Your task to perform on an android device: turn on showing notifications on the lock screen Image 0: 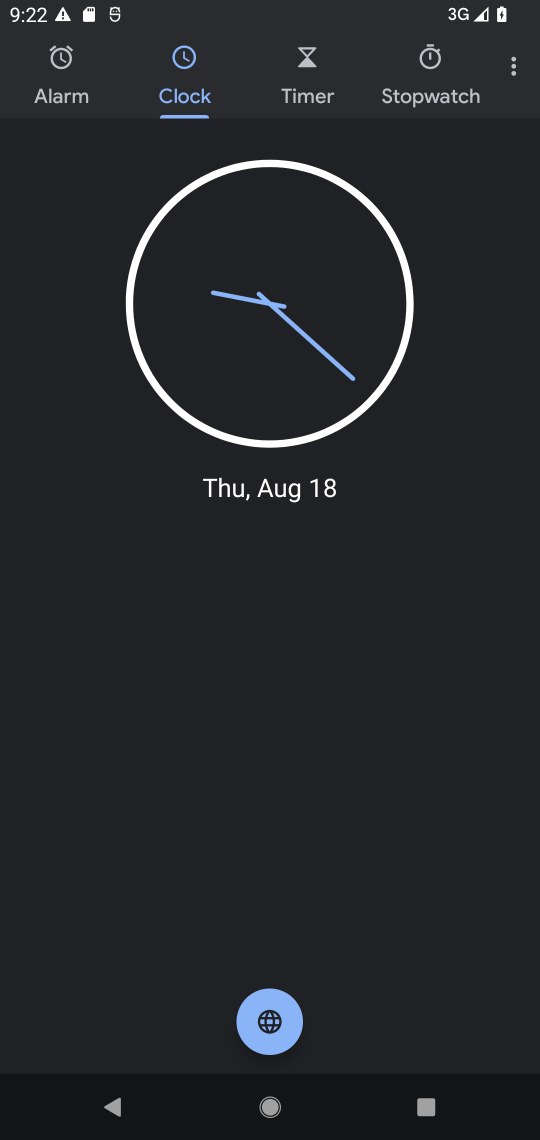
Step 0: press home button
Your task to perform on an android device: turn on showing notifications on the lock screen Image 1: 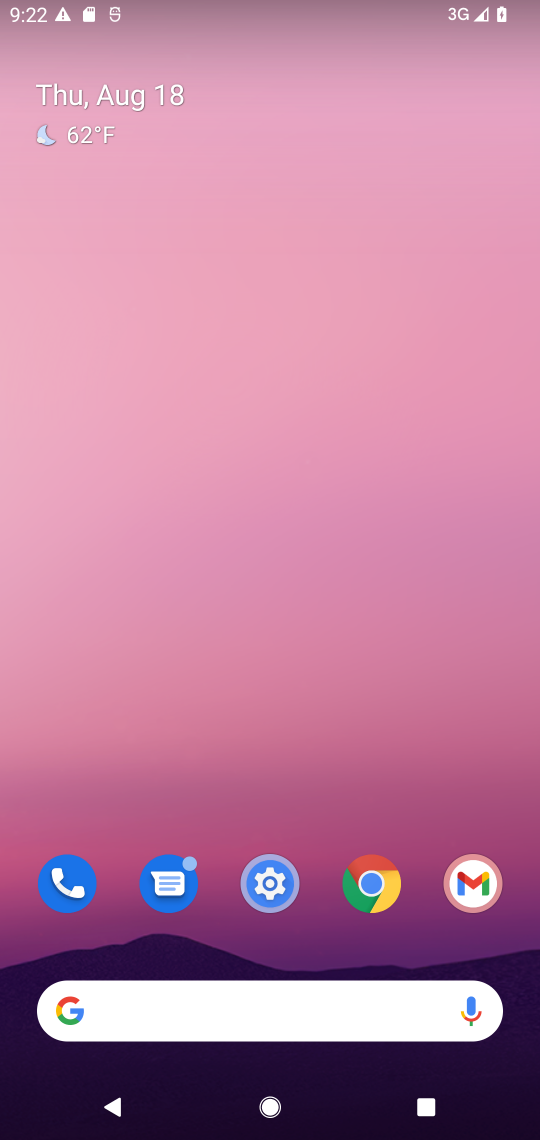
Step 1: drag from (41, 1097) to (269, 282)
Your task to perform on an android device: turn on showing notifications on the lock screen Image 2: 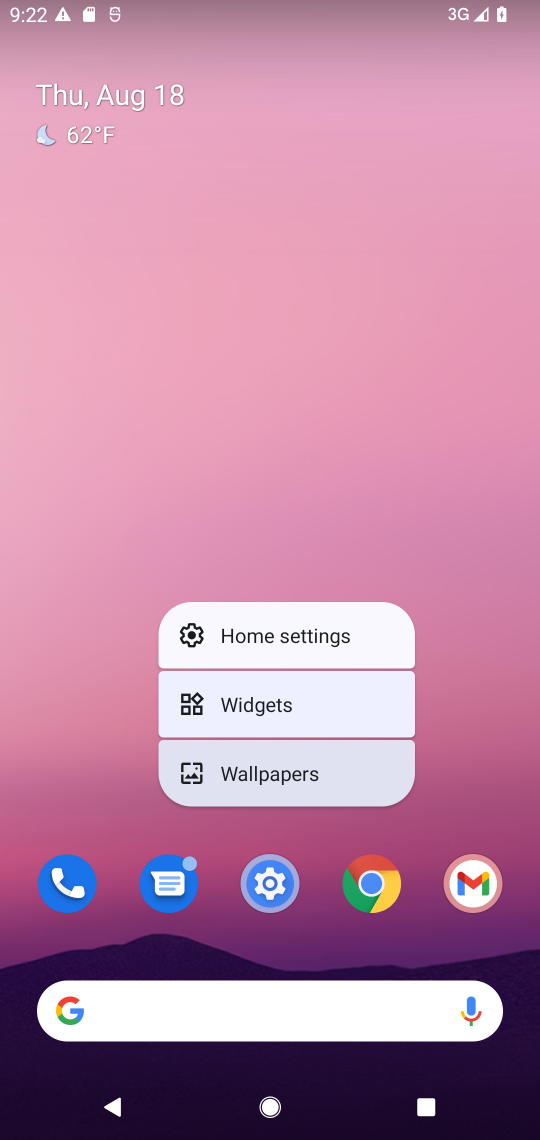
Step 2: click (275, 891)
Your task to perform on an android device: turn on showing notifications on the lock screen Image 3: 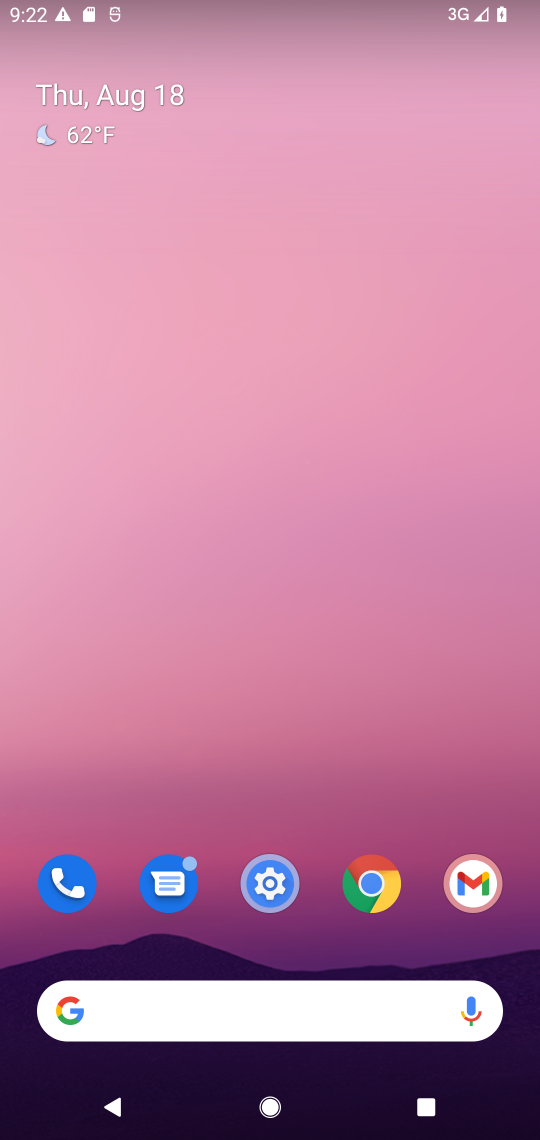
Step 3: click (266, 881)
Your task to perform on an android device: turn on showing notifications on the lock screen Image 4: 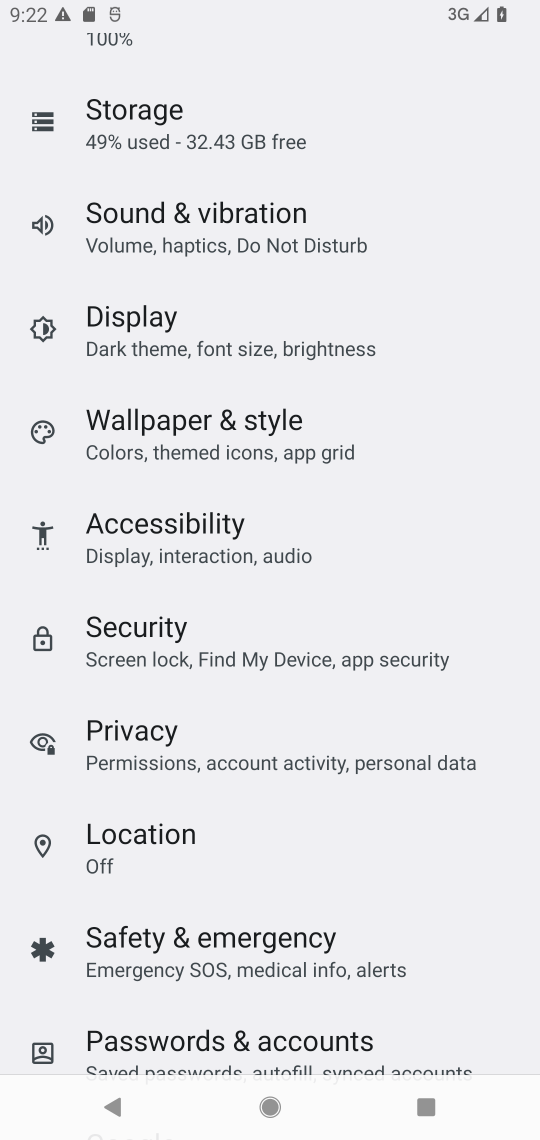
Step 4: drag from (403, 103) to (438, 902)
Your task to perform on an android device: turn on showing notifications on the lock screen Image 5: 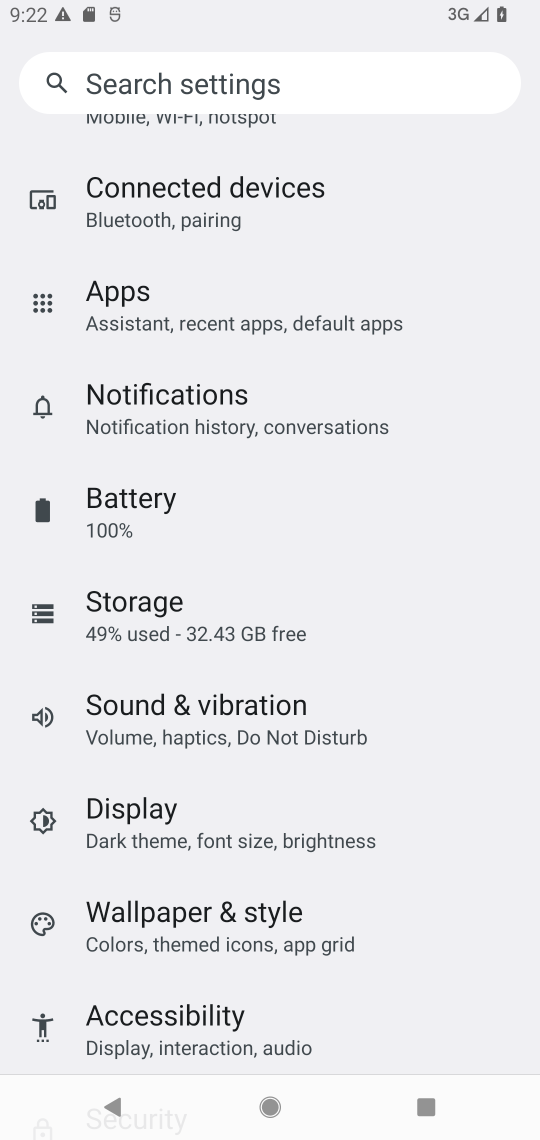
Step 5: click (225, 400)
Your task to perform on an android device: turn on showing notifications on the lock screen Image 6: 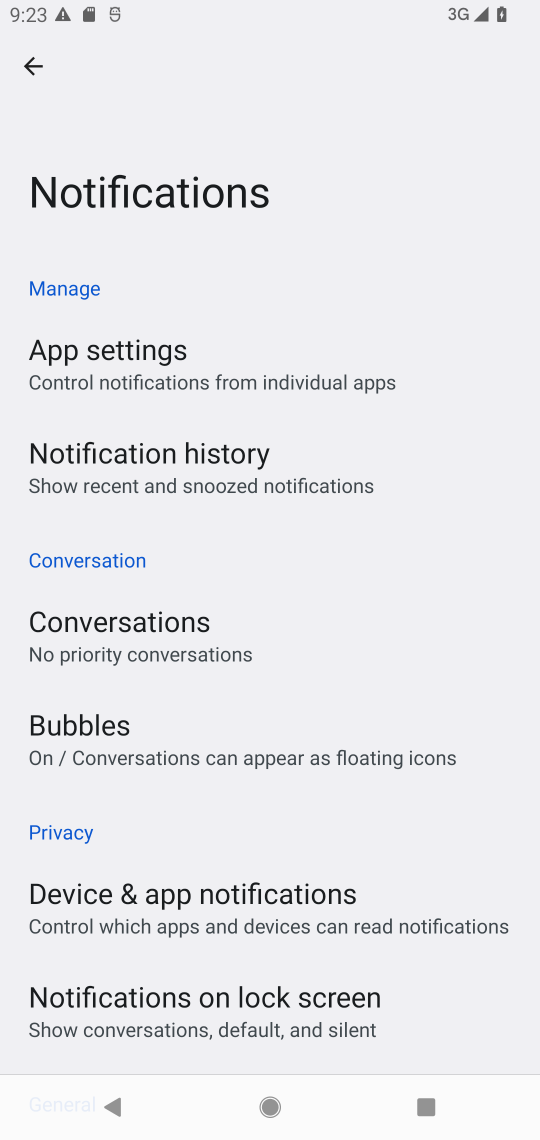
Step 6: click (280, 1003)
Your task to perform on an android device: turn on showing notifications on the lock screen Image 7: 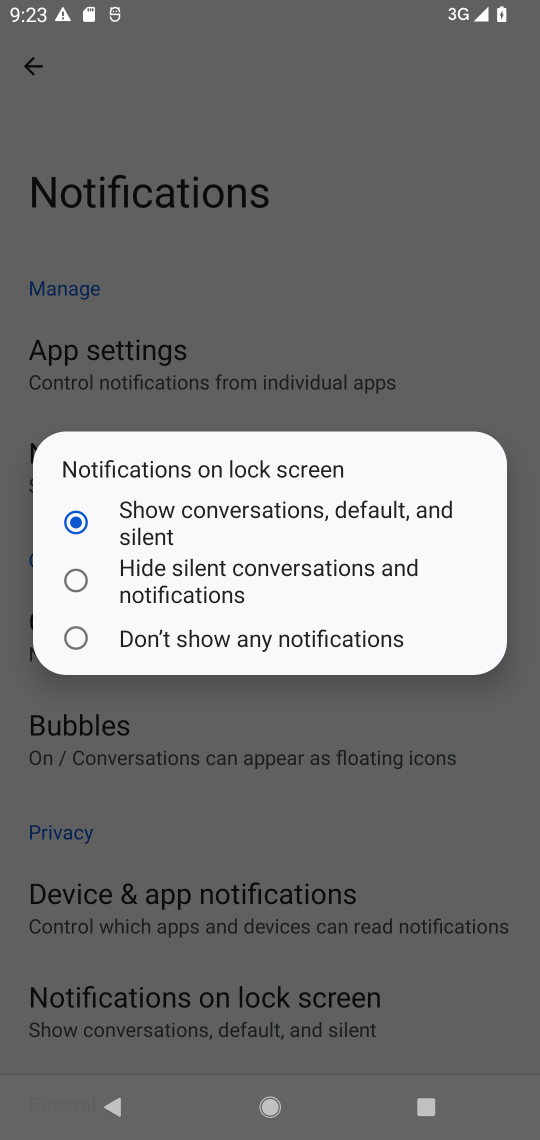
Step 7: task complete